Your task to perform on an android device: turn on the 24-hour format for clock Image 0: 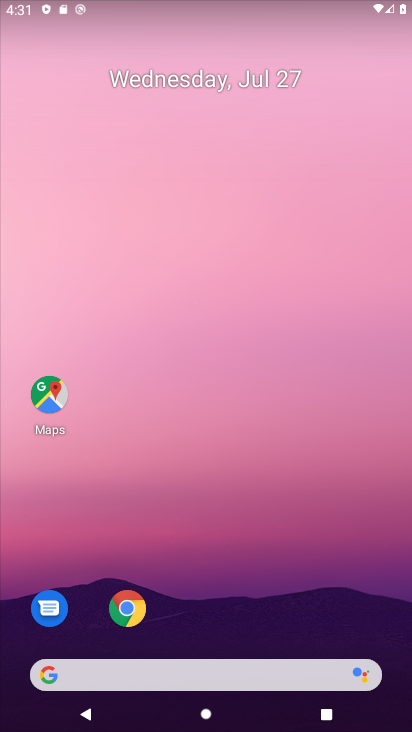
Step 0: drag from (337, 660) to (213, 140)
Your task to perform on an android device: turn on the 24-hour format for clock Image 1: 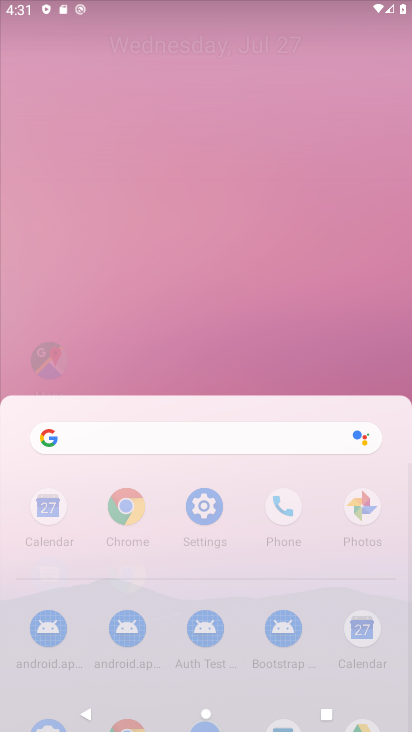
Step 1: drag from (241, 431) to (199, 128)
Your task to perform on an android device: turn on the 24-hour format for clock Image 2: 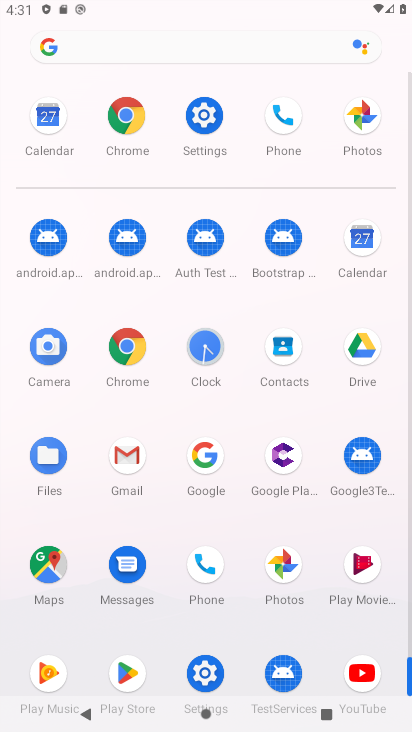
Step 2: click (194, 333)
Your task to perform on an android device: turn on the 24-hour format for clock Image 3: 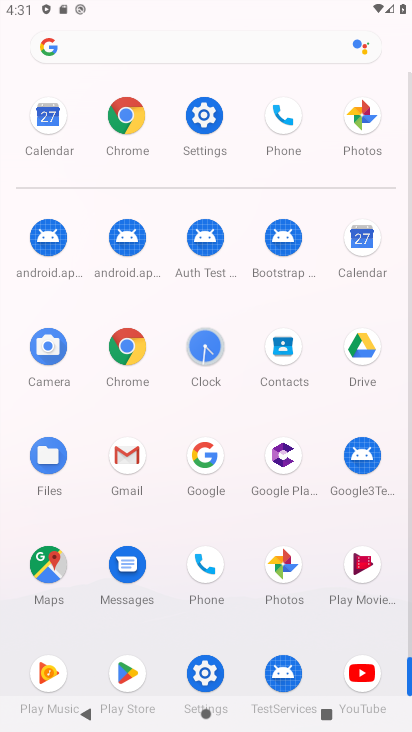
Step 3: click (194, 344)
Your task to perform on an android device: turn on the 24-hour format for clock Image 4: 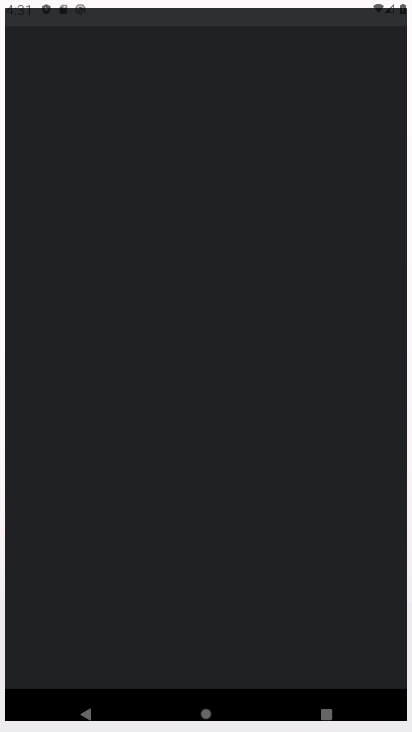
Step 4: click (199, 368)
Your task to perform on an android device: turn on the 24-hour format for clock Image 5: 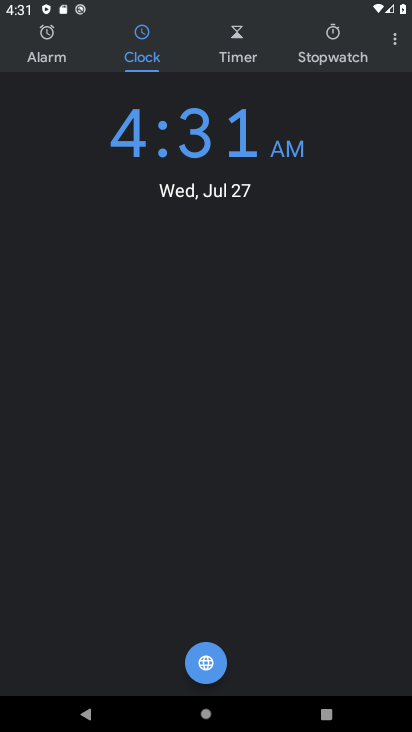
Step 5: click (395, 41)
Your task to perform on an android device: turn on the 24-hour format for clock Image 6: 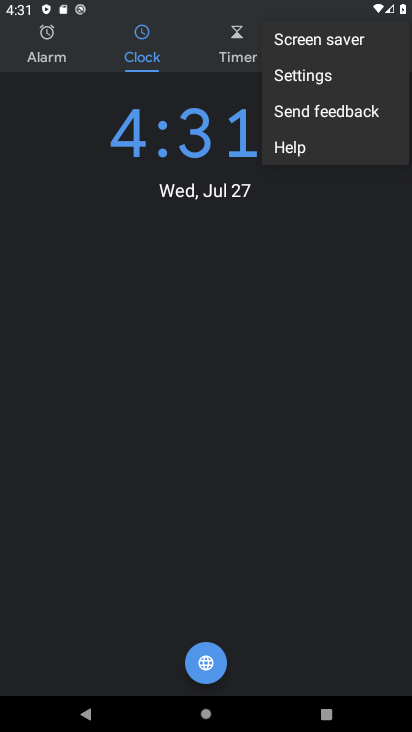
Step 6: click (280, 79)
Your task to perform on an android device: turn on the 24-hour format for clock Image 7: 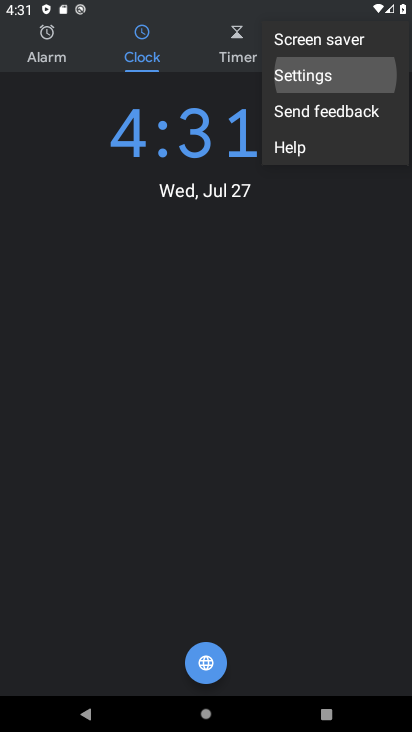
Step 7: click (282, 79)
Your task to perform on an android device: turn on the 24-hour format for clock Image 8: 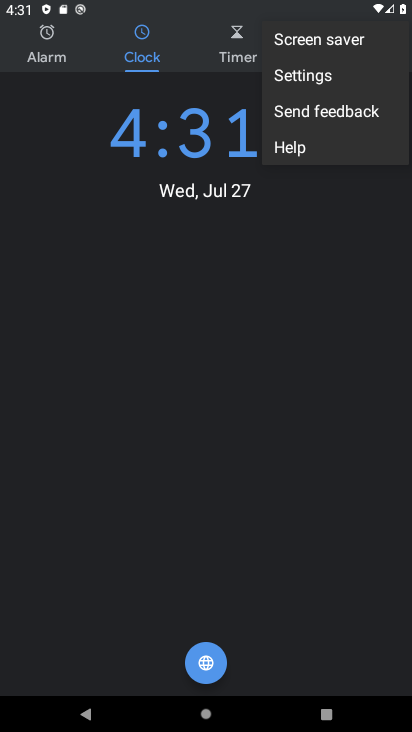
Step 8: click (292, 83)
Your task to perform on an android device: turn on the 24-hour format for clock Image 9: 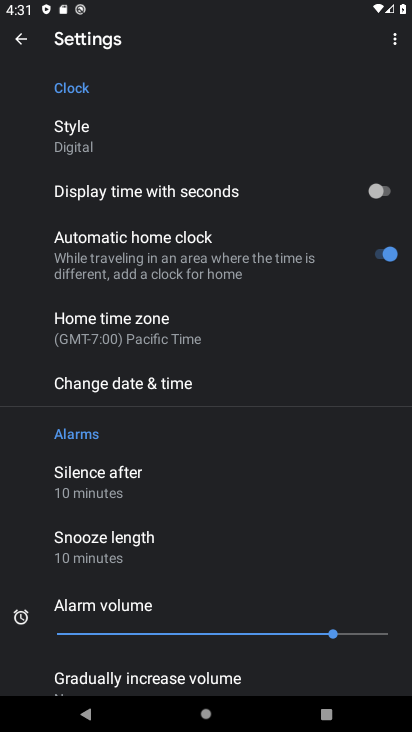
Step 9: click (133, 383)
Your task to perform on an android device: turn on the 24-hour format for clock Image 10: 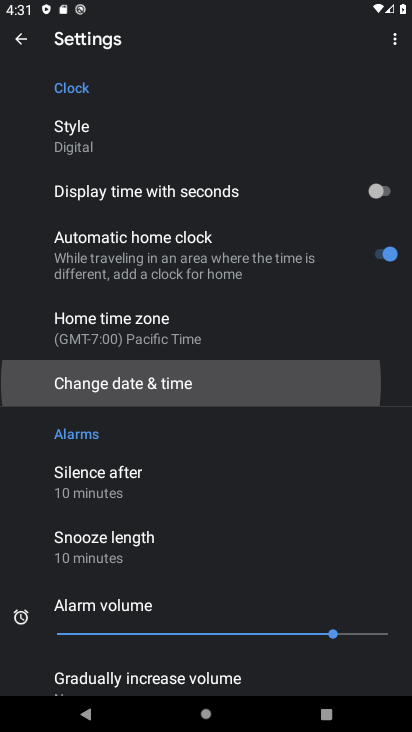
Step 10: click (134, 382)
Your task to perform on an android device: turn on the 24-hour format for clock Image 11: 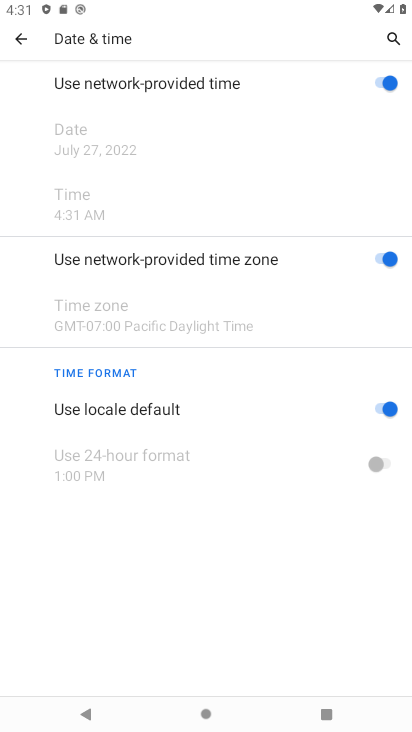
Step 11: click (388, 405)
Your task to perform on an android device: turn on the 24-hour format for clock Image 12: 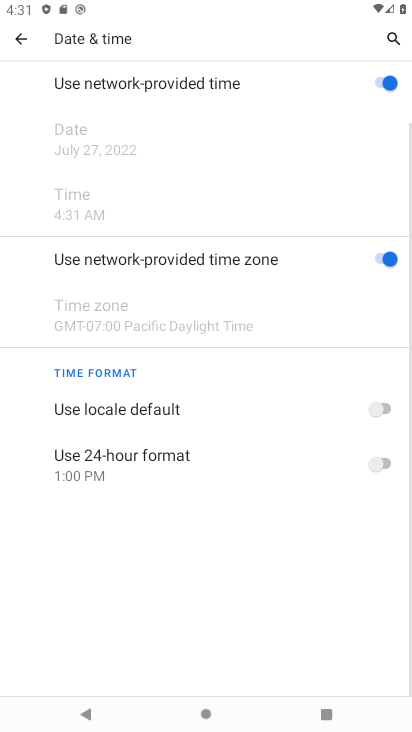
Step 12: click (378, 459)
Your task to perform on an android device: turn on the 24-hour format for clock Image 13: 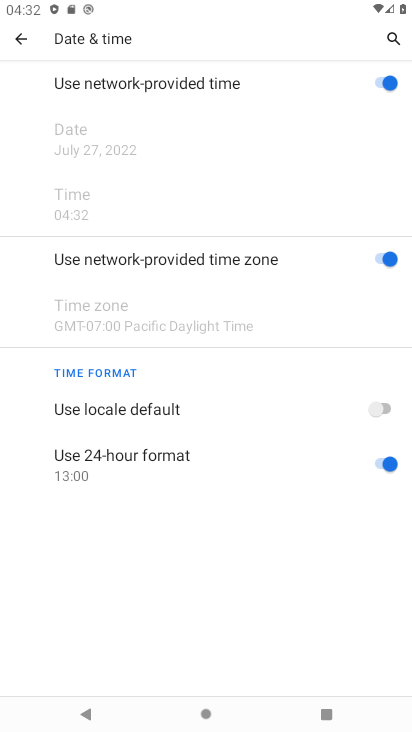
Step 13: task complete